Your task to perform on an android device: Open the Play Movies app and select the watchlist tab. Image 0: 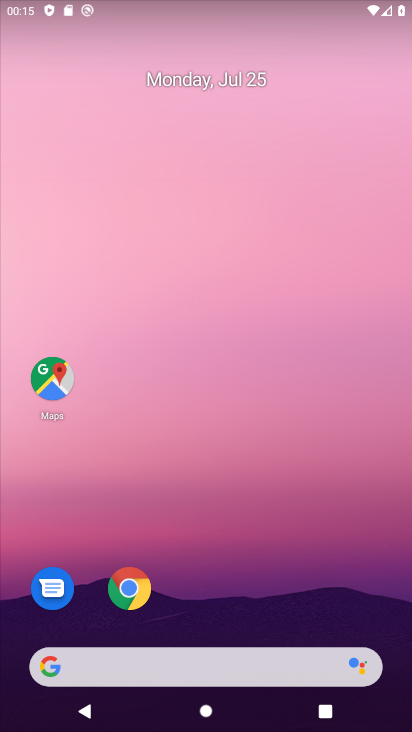
Step 0: drag from (207, 608) to (265, 7)
Your task to perform on an android device: Open the Play Movies app and select the watchlist tab. Image 1: 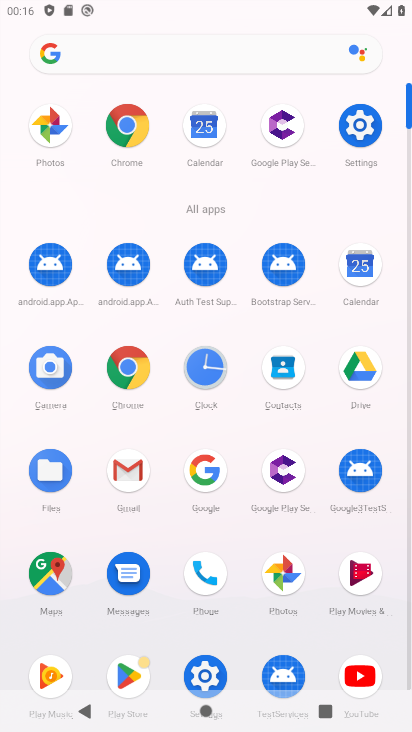
Step 1: click (364, 587)
Your task to perform on an android device: Open the Play Movies app and select the watchlist tab. Image 2: 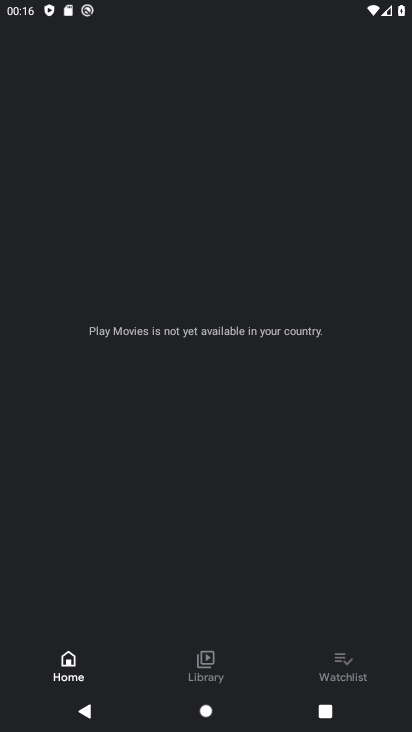
Step 2: click (344, 666)
Your task to perform on an android device: Open the Play Movies app and select the watchlist tab. Image 3: 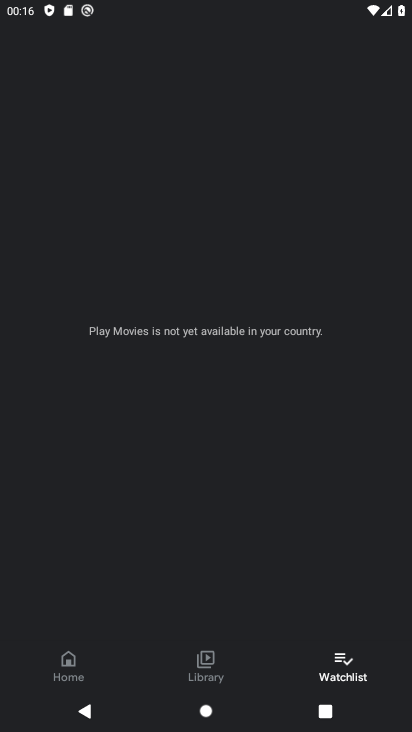
Step 3: task complete